Your task to perform on an android device: turn off sleep mode Image 0: 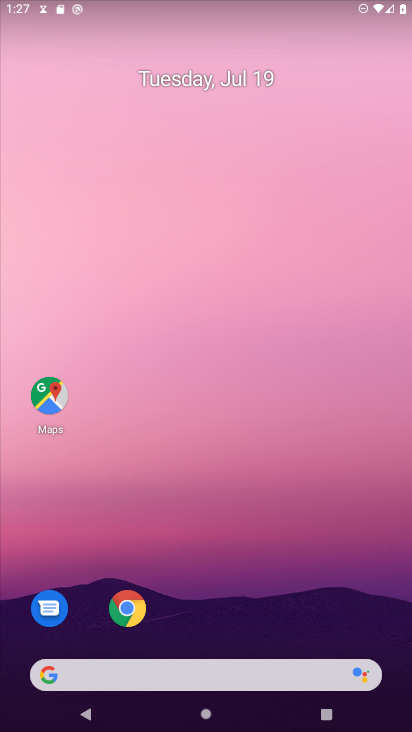
Step 0: drag from (232, 542) to (260, 3)
Your task to perform on an android device: turn off sleep mode Image 1: 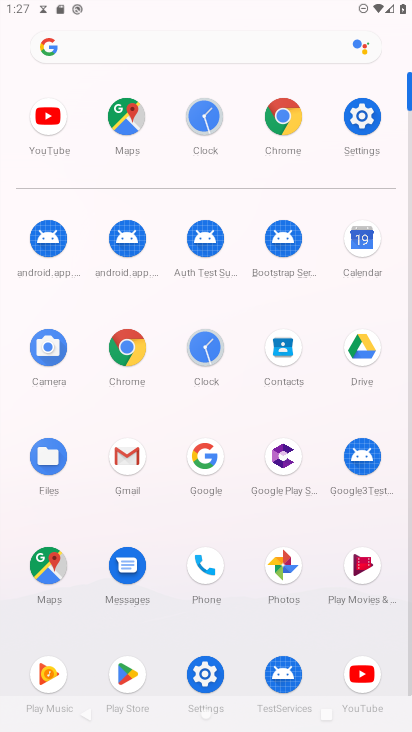
Step 1: click (367, 121)
Your task to perform on an android device: turn off sleep mode Image 2: 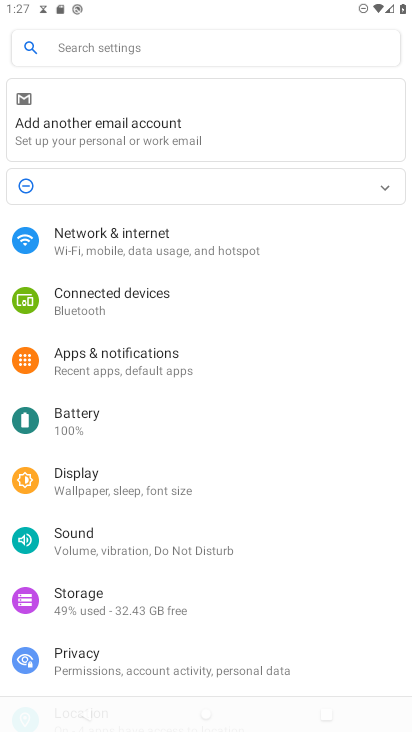
Step 2: click (132, 488)
Your task to perform on an android device: turn off sleep mode Image 3: 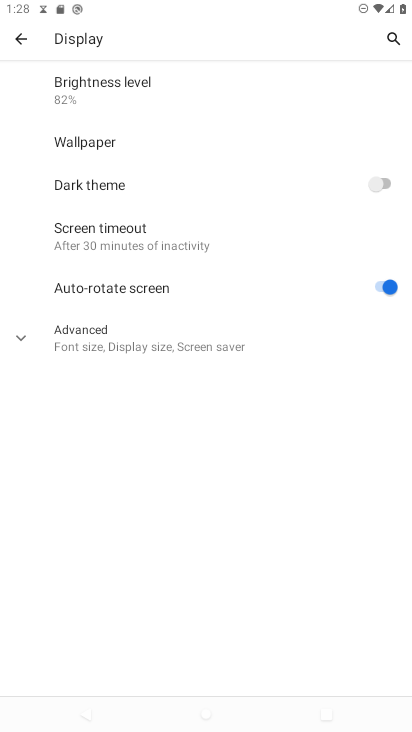
Step 3: task complete